Your task to perform on an android device: open app "Spotify" (install if not already installed) Image 0: 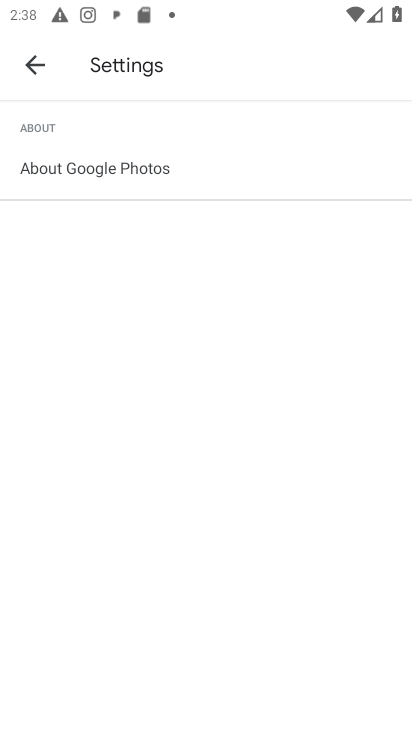
Step 0: press home button
Your task to perform on an android device: open app "Spotify" (install if not already installed) Image 1: 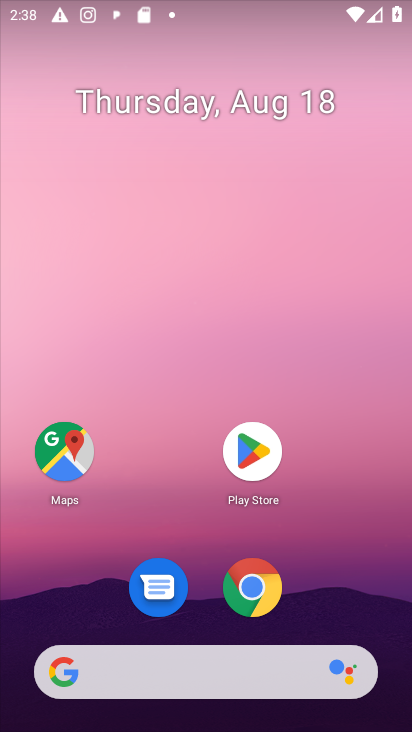
Step 1: click (249, 455)
Your task to perform on an android device: open app "Spotify" (install if not already installed) Image 2: 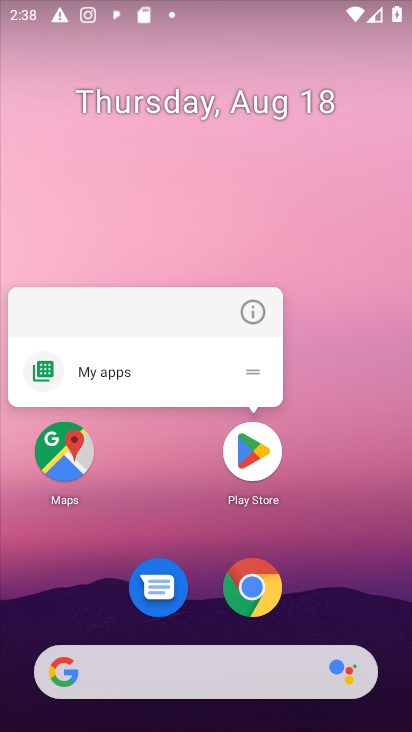
Step 2: click (249, 457)
Your task to perform on an android device: open app "Spotify" (install if not already installed) Image 3: 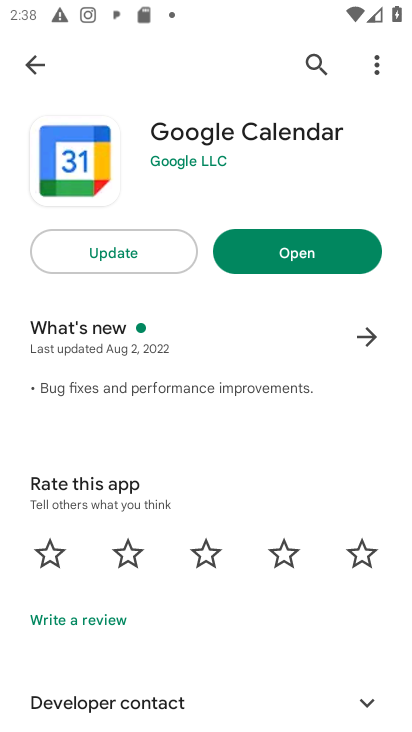
Step 3: click (314, 57)
Your task to perform on an android device: open app "Spotify" (install if not already installed) Image 4: 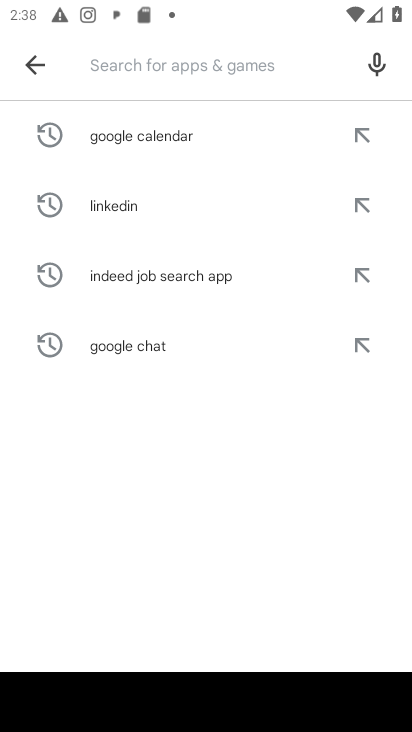
Step 4: type "Spotify"
Your task to perform on an android device: open app "Spotify" (install if not already installed) Image 5: 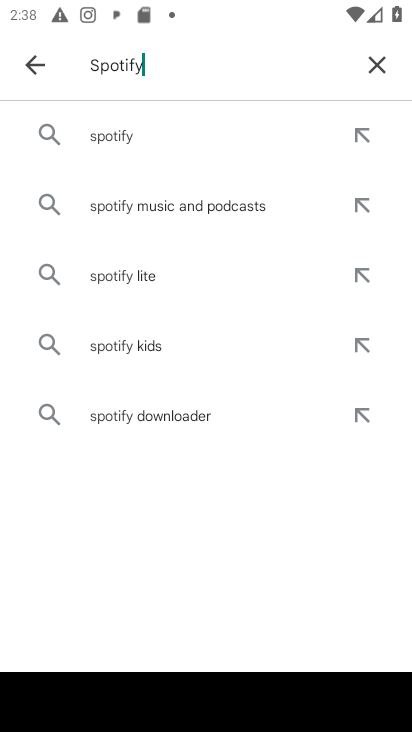
Step 5: click (122, 140)
Your task to perform on an android device: open app "Spotify" (install if not already installed) Image 6: 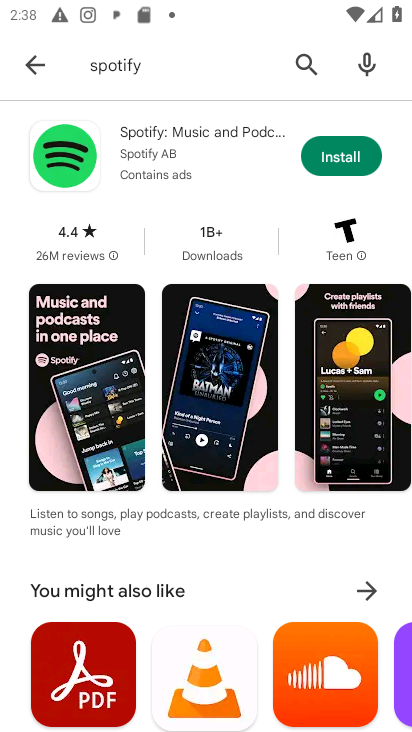
Step 6: click (326, 150)
Your task to perform on an android device: open app "Spotify" (install if not already installed) Image 7: 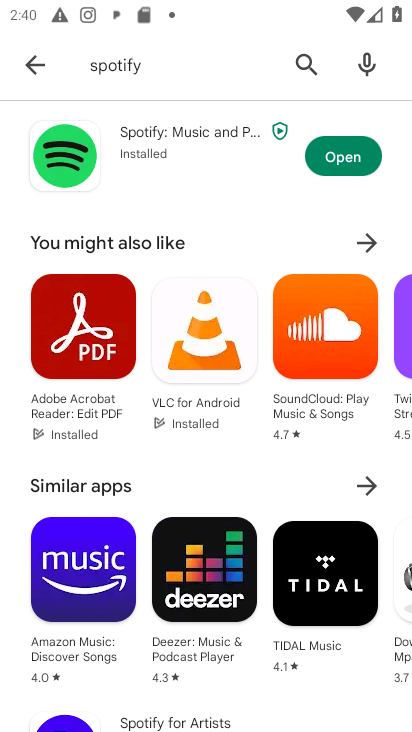
Step 7: click (337, 159)
Your task to perform on an android device: open app "Spotify" (install if not already installed) Image 8: 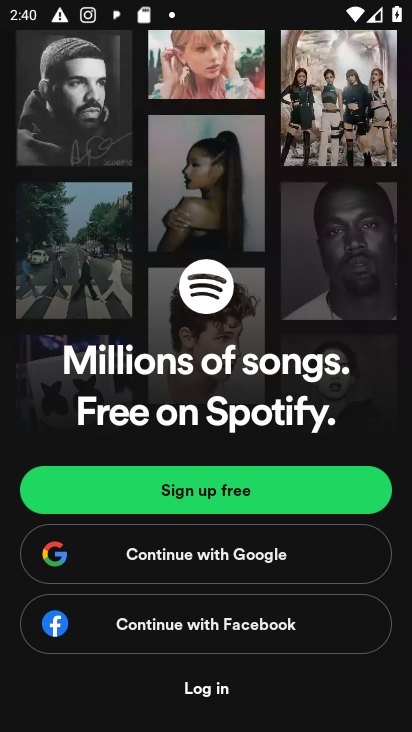
Step 8: task complete